Your task to perform on an android device: turn off javascript in the chrome app Image 0: 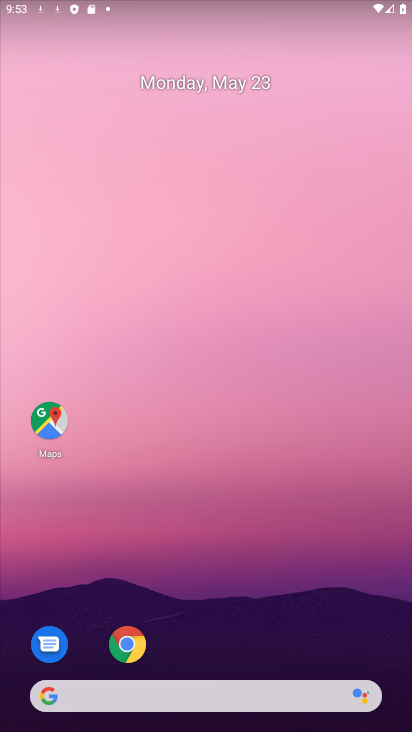
Step 0: drag from (270, 708) to (224, 106)
Your task to perform on an android device: turn off javascript in the chrome app Image 1: 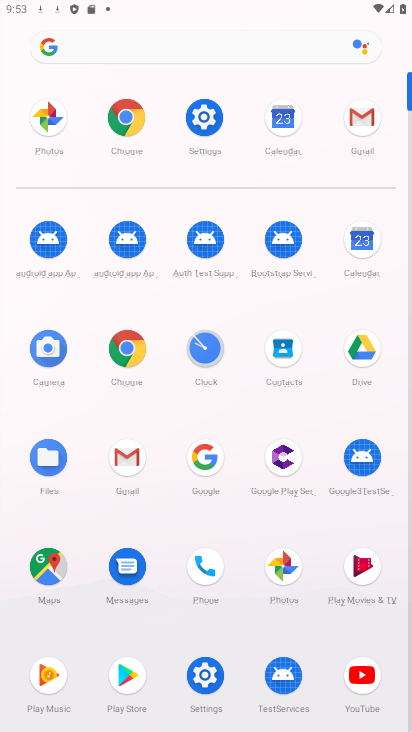
Step 1: click (122, 134)
Your task to perform on an android device: turn off javascript in the chrome app Image 2: 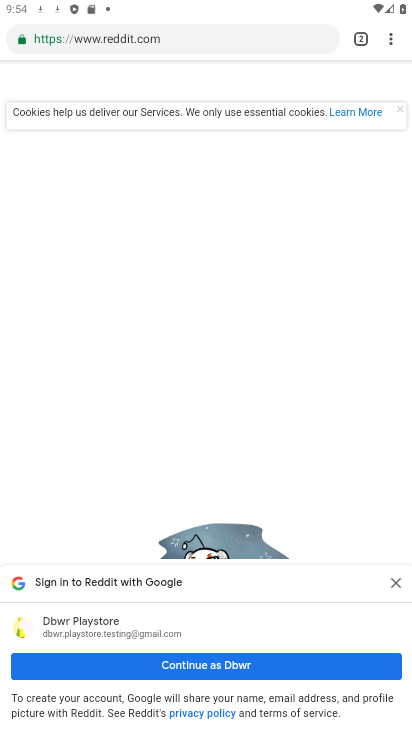
Step 2: click (387, 33)
Your task to perform on an android device: turn off javascript in the chrome app Image 3: 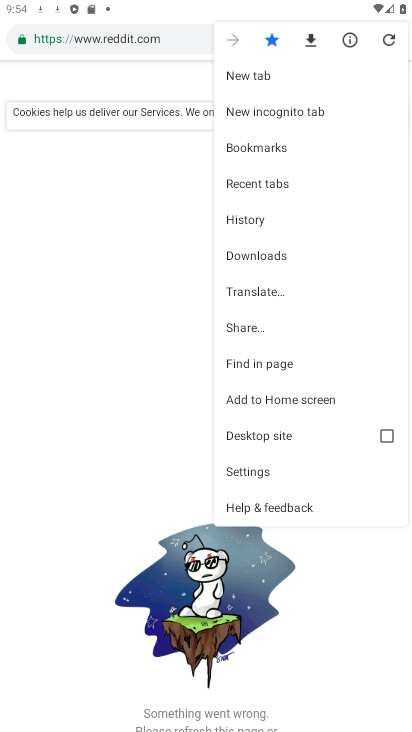
Step 3: click (250, 467)
Your task to perform on an android device: turn off javascript in the chrome app Image 4: 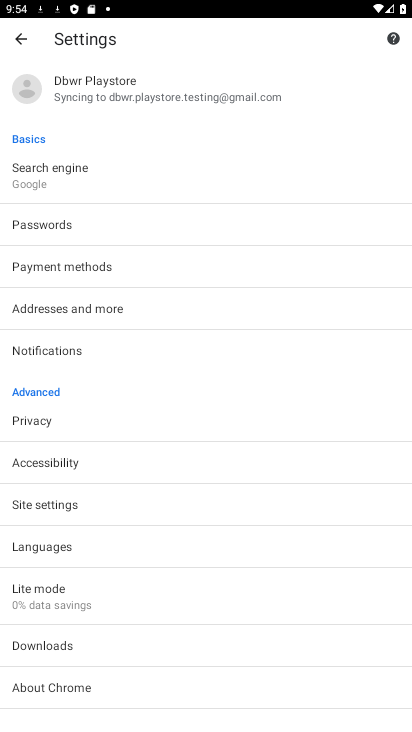
Step 4: click (46, 507)
Your task to perform on an android device: turn off javascript in the chrome app Image 5: 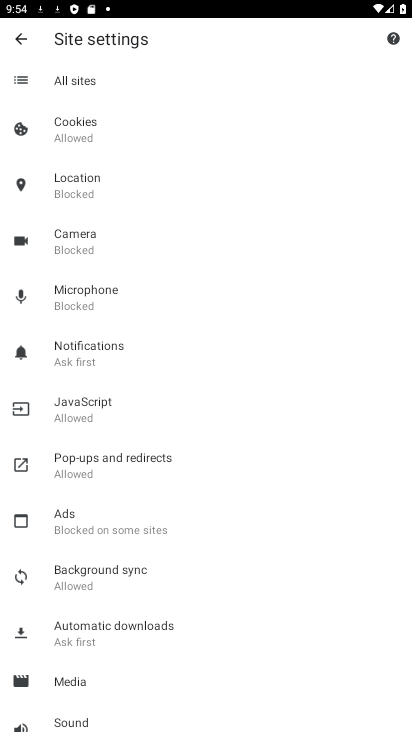
Step 5: click (99, 410)
Your task to perform on an android device: turn off javascript in the chrome app Image 6: 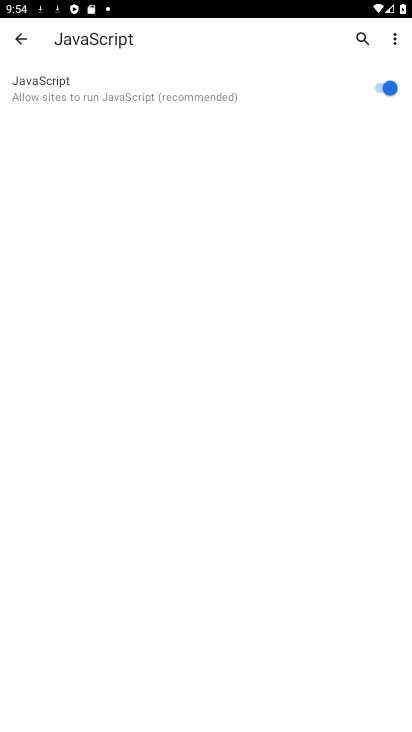
Step 6: click (390, 102)
Your task to perform on an android device: turn off javascript in the chrome app Image 7: 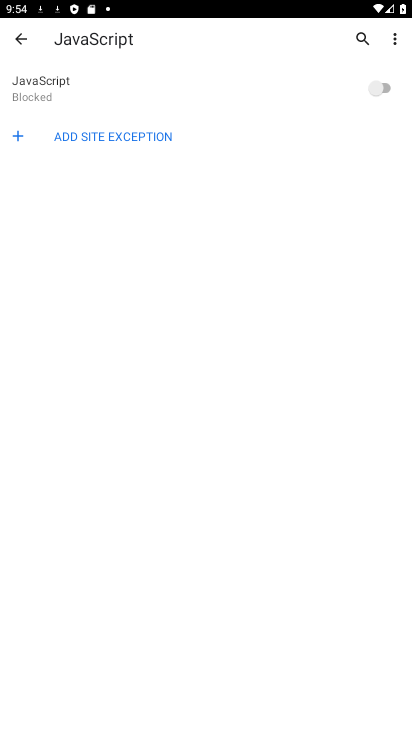
Step 7: task complete